Your task to perform on an android device: turn vacation reply on in the gmail app Image 0: 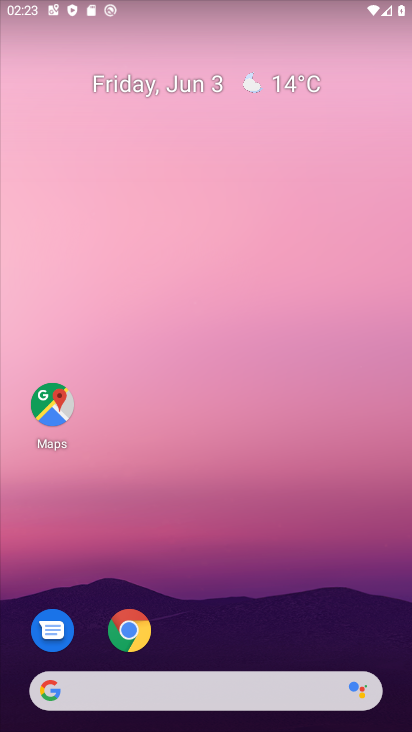
Step 0: drag from (381, 688) to (322, 147)
Your task to perform on an android device: turn vacation reply on in the gmail app Image 1: 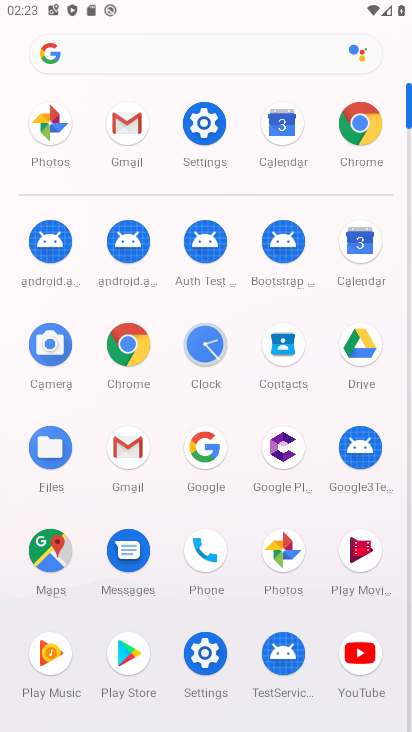
Step 1: click (126, 441)
Your task to perform on an android device: turn vacation reply on in the gmail app Image 2: 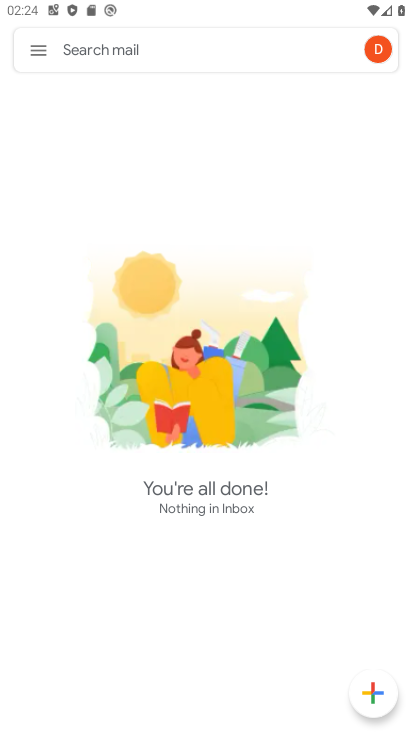
Step 2: click (36, 53)
Your task to perform on an android device: turn vacation reply on in the gmail app Image 3: 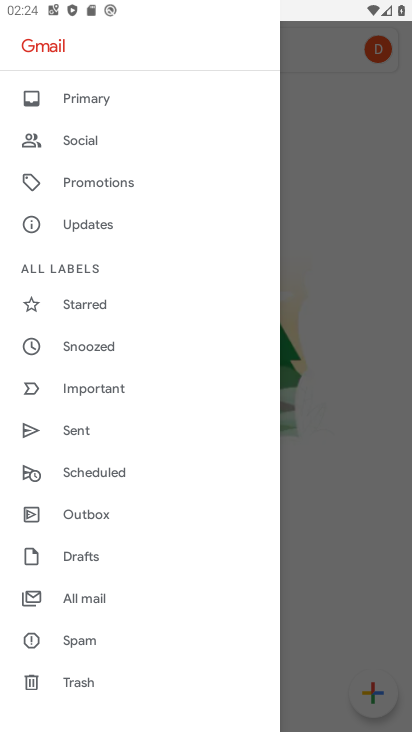
Step 3: drag from (187, 648) to (189, 426)
Your task to perform on an android device: turn vacation reply on in the gmail app Image 4: 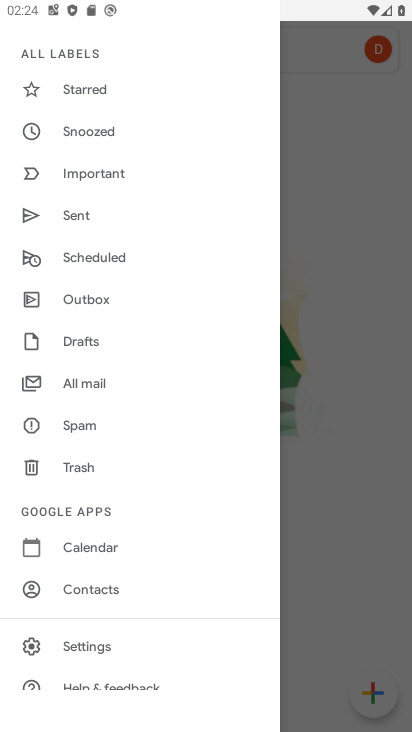
Step 4: click (72, 644)
Your task to perform on an android device: turn vacation reply on in the gmail app Image 5: 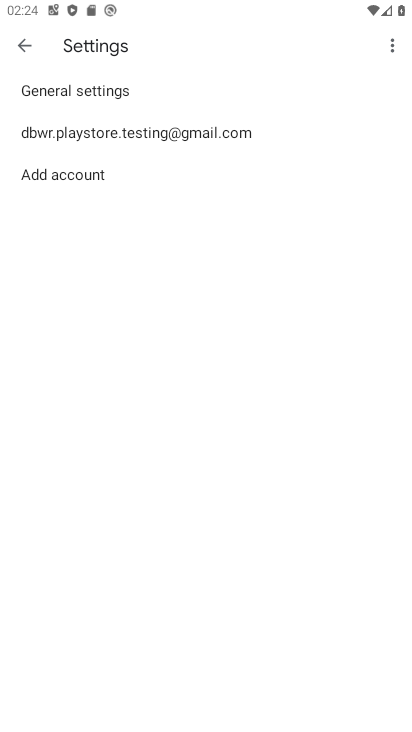
Step 5: click (80, 134)
Your task to perform on an android device: turn vacation reply on in the gmail app Image 6: 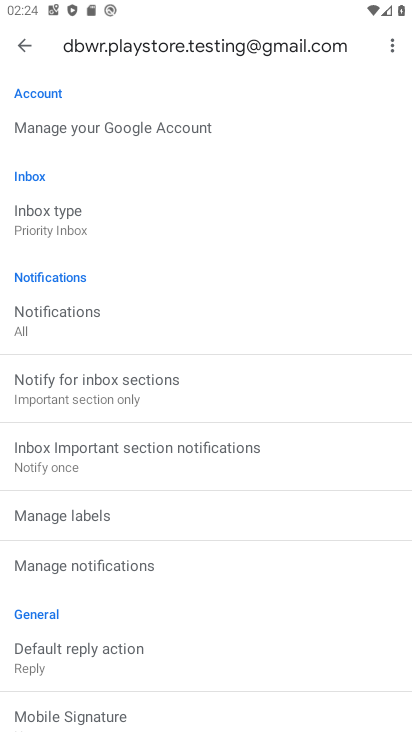
Step 6: drag from (246, 669) to (234, 154)
Your task to perform on an android device: turn vacation reply on in the gmail app Image 7: 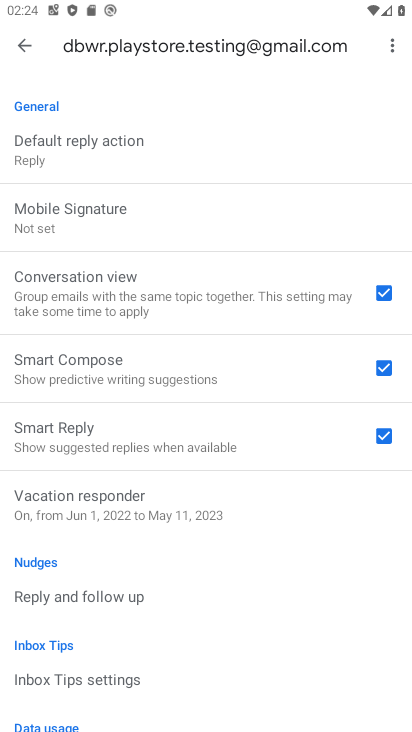
Step 7: click (105, 501)
Your task to perform on an android device: turn vacation reply on in the gmail app Image 8: 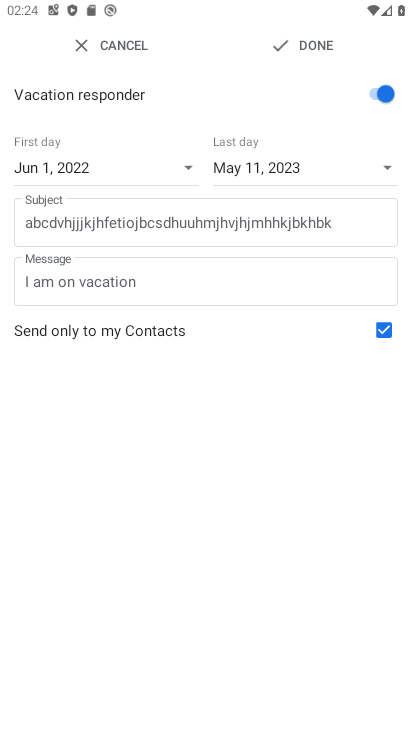
Step 8: task complete